Your task to perform on an android device: turn on translation in the chrome app Image 0: 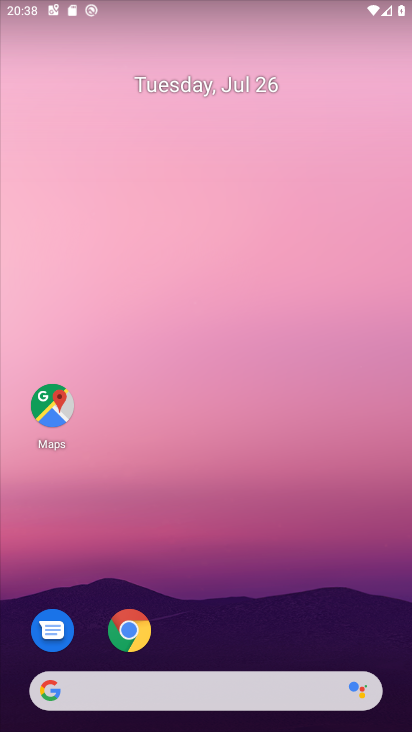
Step 0: click (120, 631)
Your task to perform on an android device: turn on translation in the chrome app Image 1: 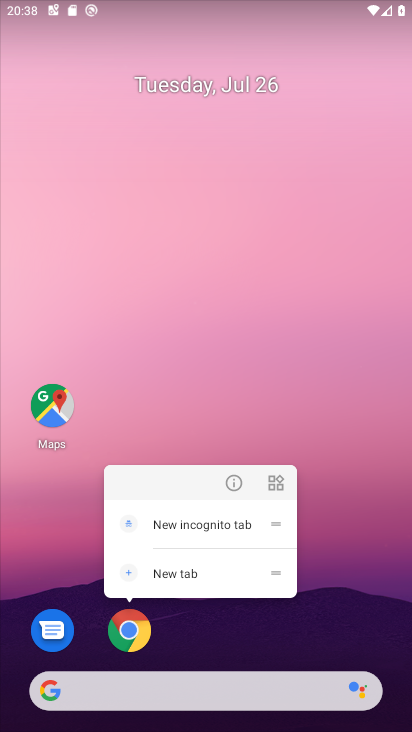
Step 1: click (132, 628)
Your task to perform on an android device: turn on translation in the chrome app Image 2: 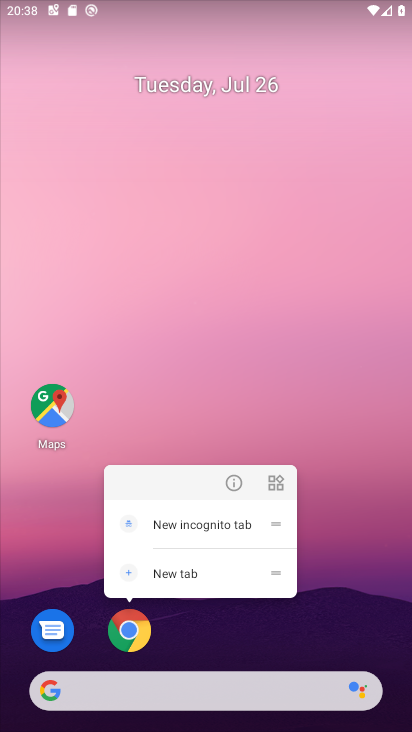
Step 2: click (132, 628)
Your task to perform on an android device: turn on translation in the chrome app Image 3: 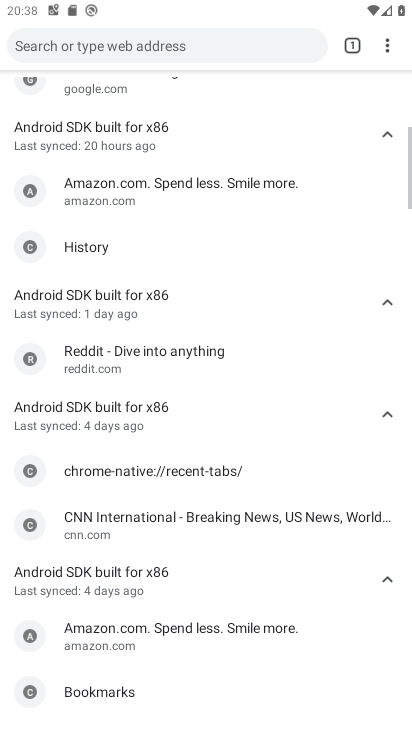
Step 3: click (386, 44)
Your task to perform on an android device: turn on translation in the chrome app Image 4: 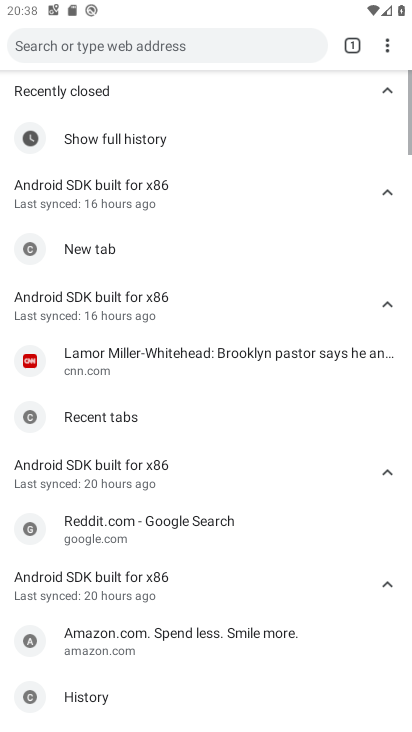
Step 4: click (386, 44)
Your task to perform on an android device: turn on translation in the chrome app Image 5: 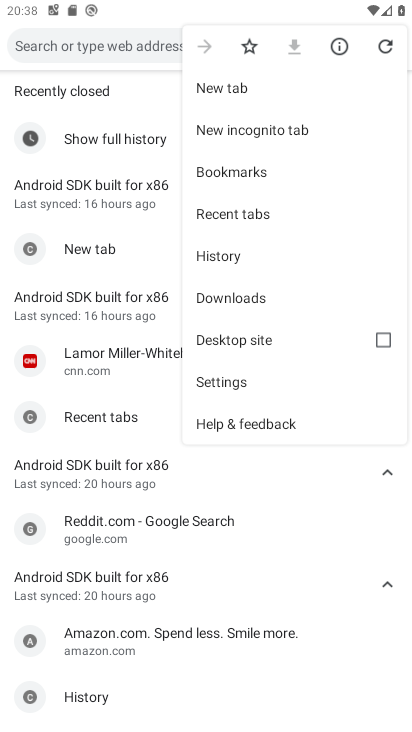
Step 5: click (206, 379)
Your task to perform on an android device: turn on translation in the chrome app Image 6: 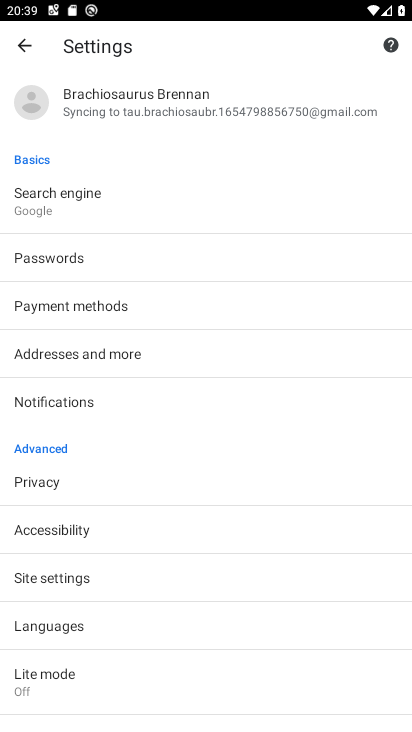
Step 6: click (57, 621)
Your task to perform on an android device: turn on translation in the chrome app Image 7: 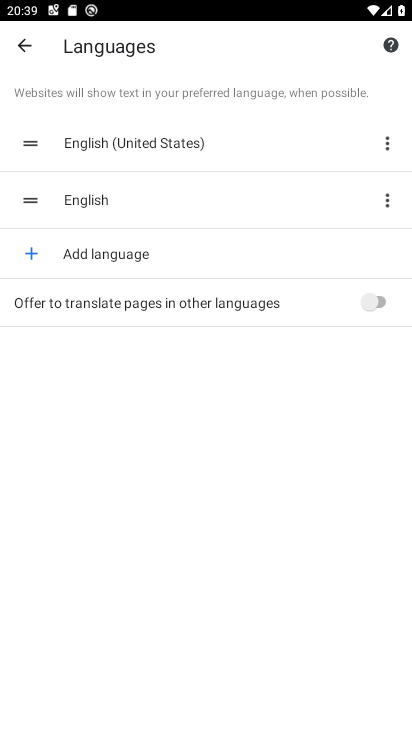
Step 7: click (382, 298)
Your task to perform on an android device: turn on translation in the chrome app Image 8: 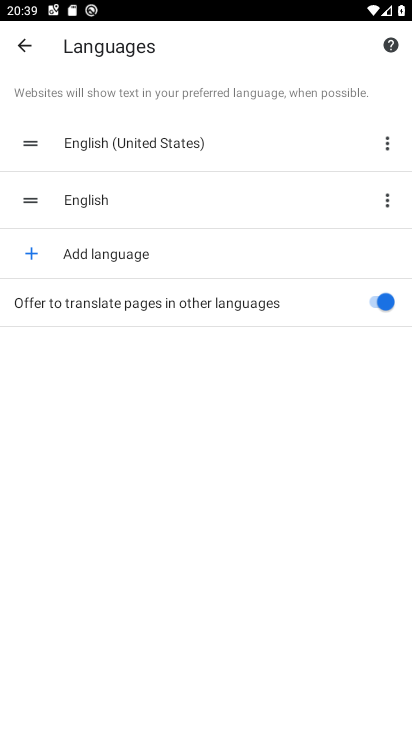
Step 8: task complete